Your task to perform on an android device: Show me popular games on the Play Store Image 0: 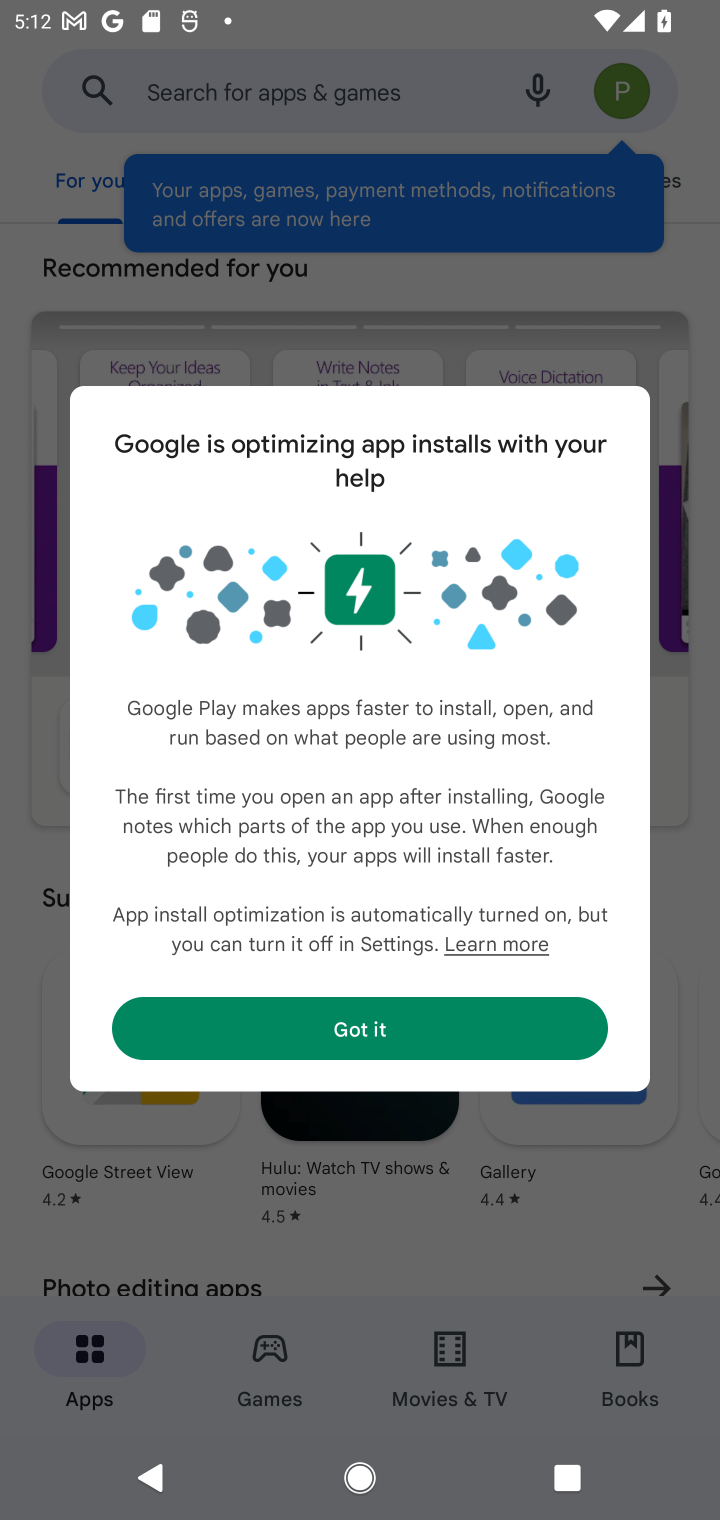
Step 0: click (429, 1014)
Your task to perform on an android device: Show me popular games on the Play Store Image 1: 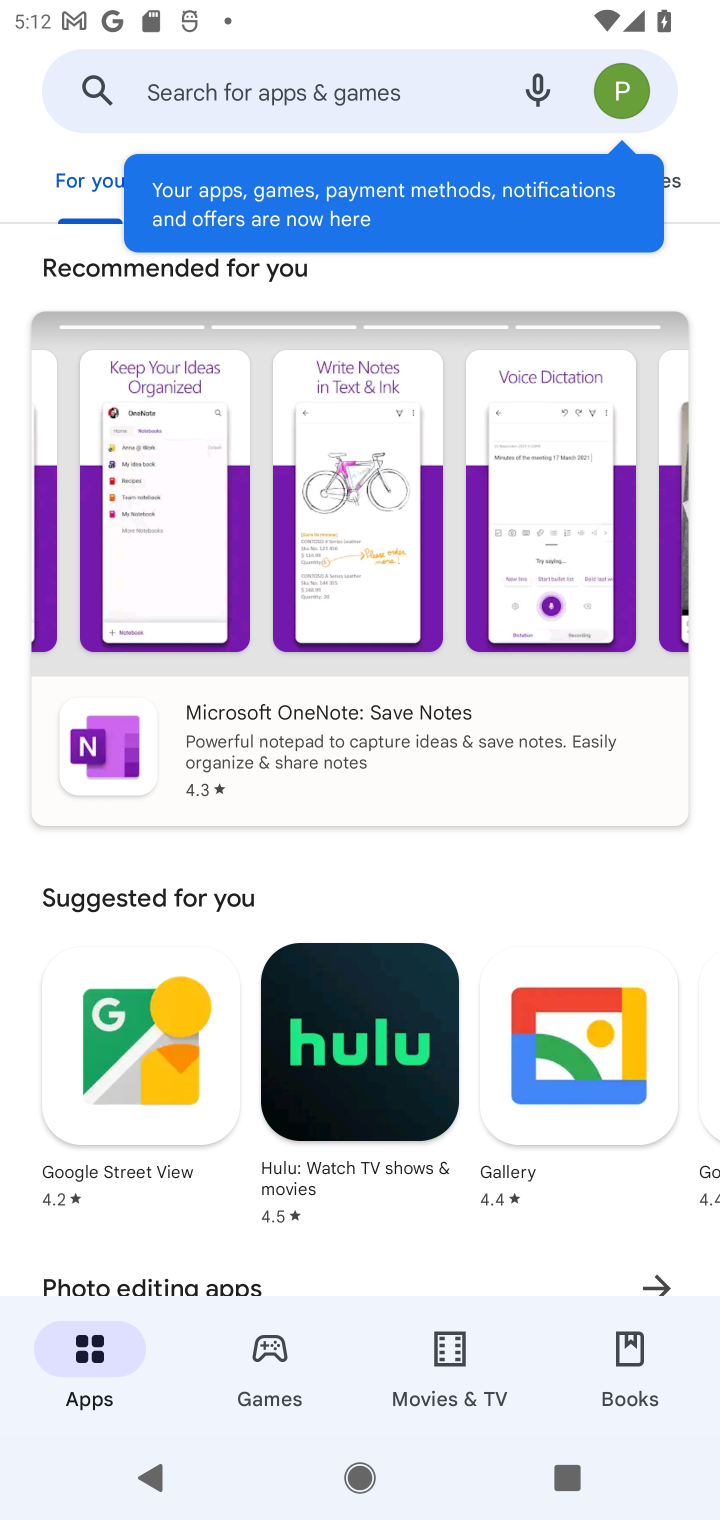
Step 1: task complete